Your task to perform on an android device: Open Amazon Image 0: 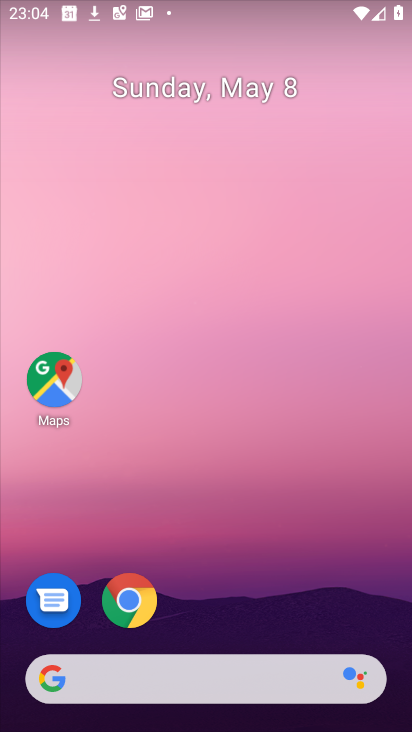
Step 0: drag from (236, 700) to (362, 261)
Your task to perform on an android device: Open Amazon Image 1: 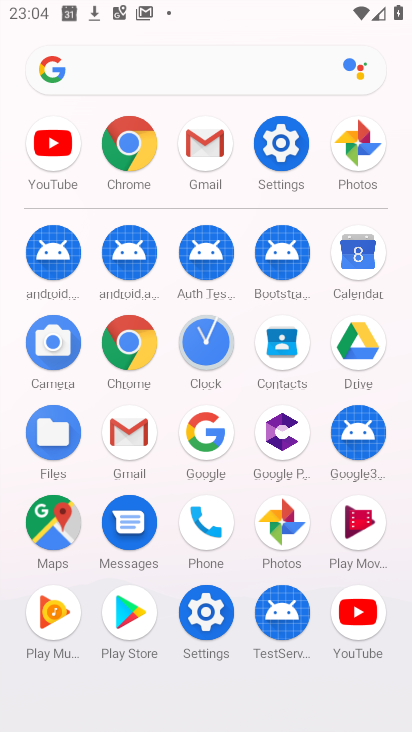
Step 1: click (127, 159)
Your task to perform on an android device: Open Amazon Image 2: 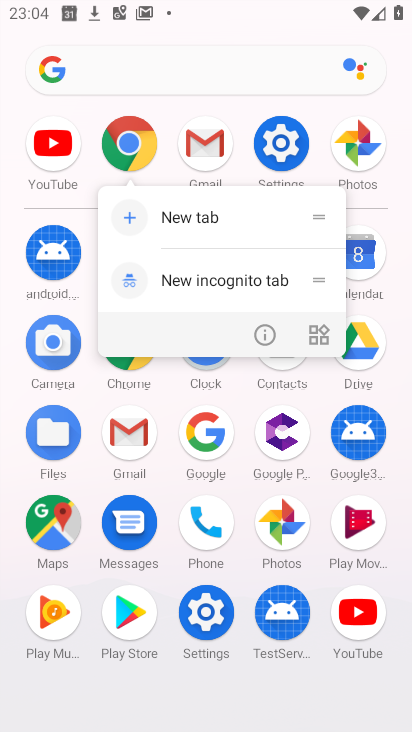
Step 2: click (111, 139)
Your task to perform on an android device: Open Amazon Image 3: 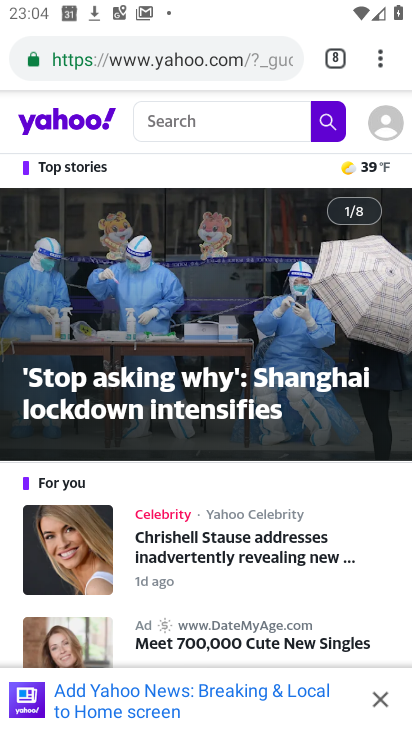
Step 3: click (339, 59)
Your task to perform on an android device: Open Amazon Image 4: 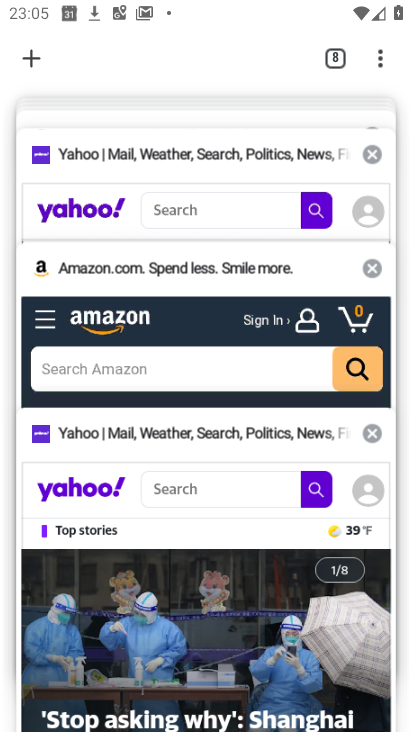
Step 4: click (41, 60)
Your task to perform on an android device: Open Amazon Image 5: 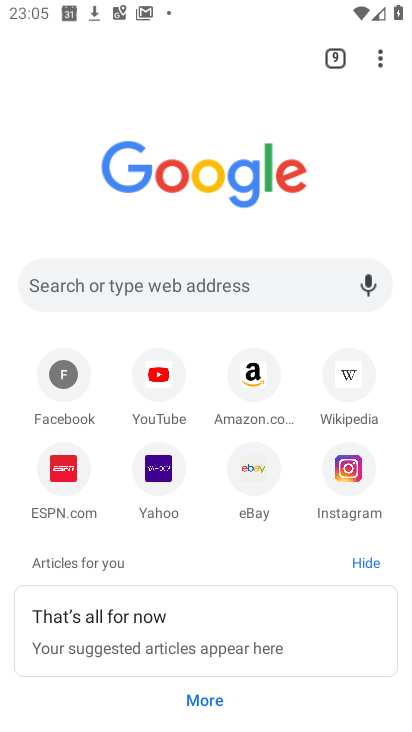
Step 5: click (253, 380)
Your task to perform on an android device: Open Amazon Image 6: 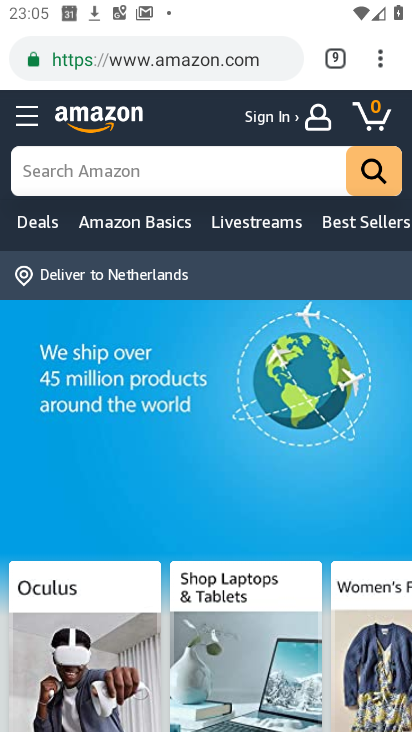
Step 6: task complete